Your task to perform on an android device: check battery use Image 0: 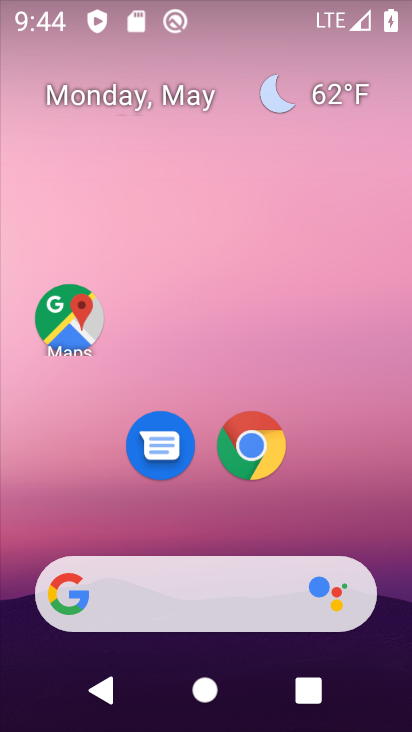
Step 0: drag from (382, 614) to (346, 73)
Your task to perform on an android device: check battery use Image 1: 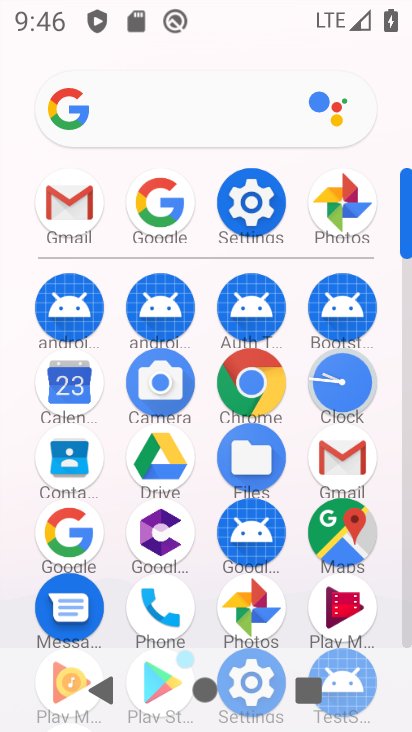
Step 1: click (268, 225)
Your task to perform on an android device: check battery use Image 2: 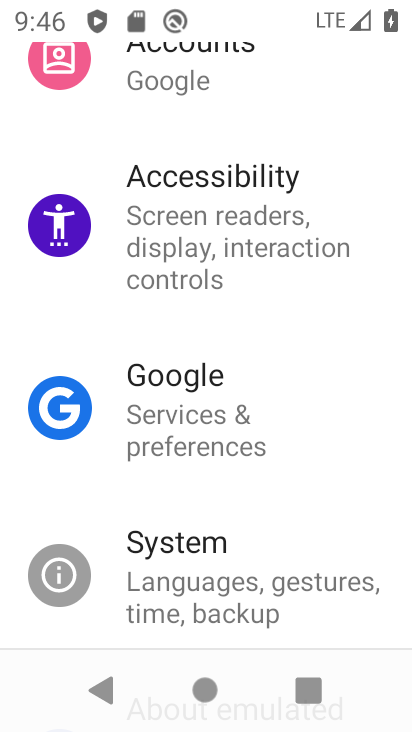
Step 2: drag from (220, 220) to (186, 728)
Your task to perform on an android device: check battery use Image 3: 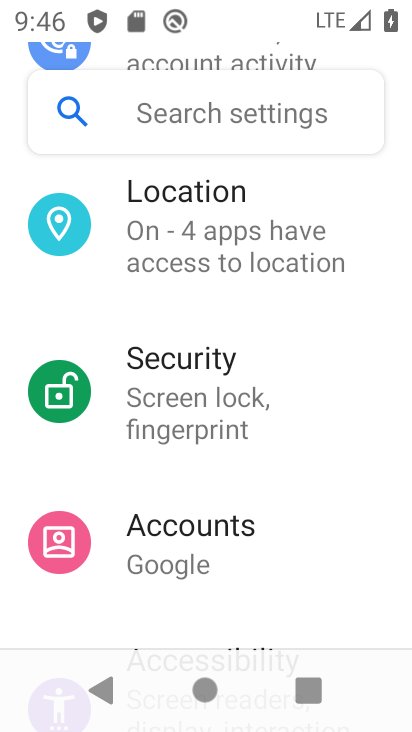
Step 3: drag from (238, 187) to (196, 599)
Your task to perform on an android device: check battery use Image 4: 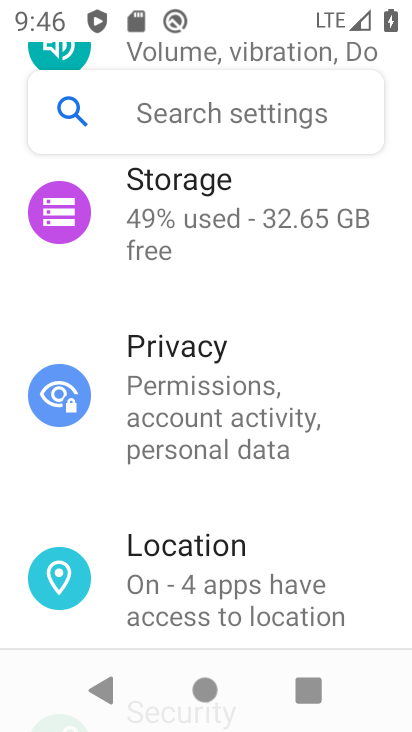
Step 4: drag from (284, 230) to (285, 591)
Your task to perform on an android device: check battery use Image 5: 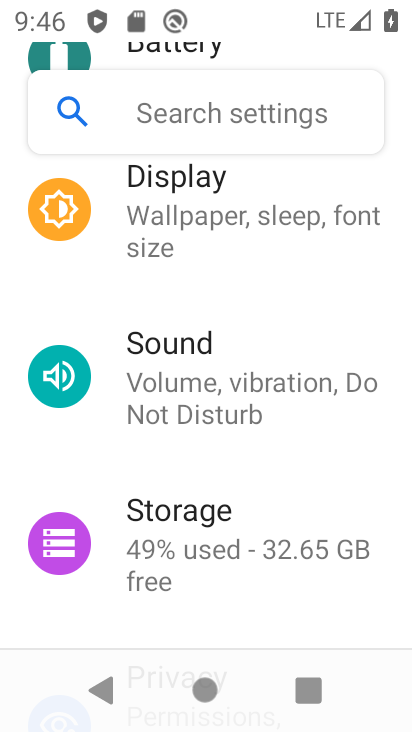
Step 5: drag from (232, 177) to (208, 527)
Your task to perform on an android device: check battery use Image 6: 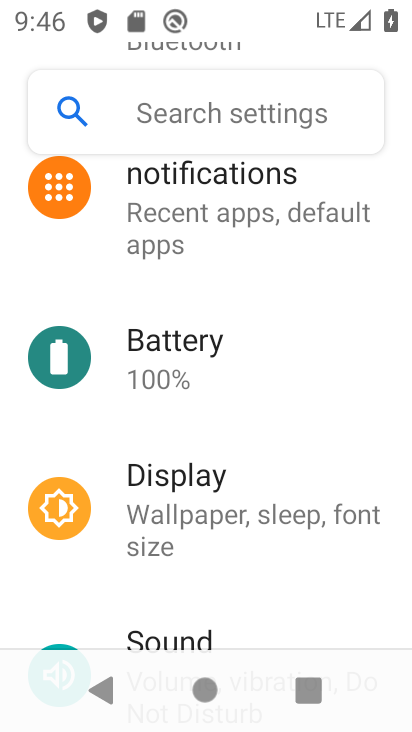
Step 6: click (183, 364)
Your task to perform on an android device: check battery use Image 7: 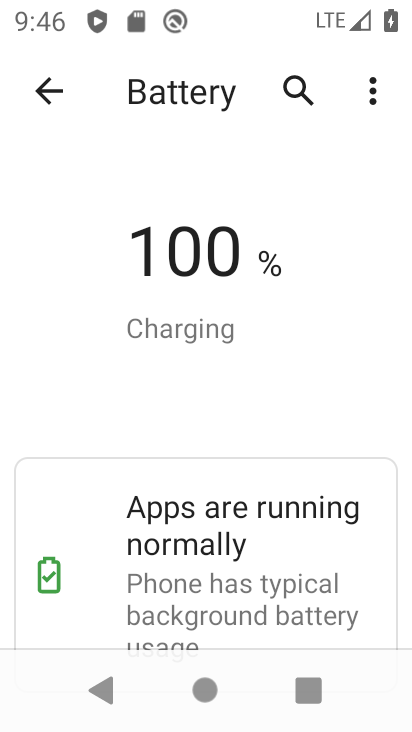
Step 7: click (372, 78)
Your task to perform on an android device: check battery use Image 8: 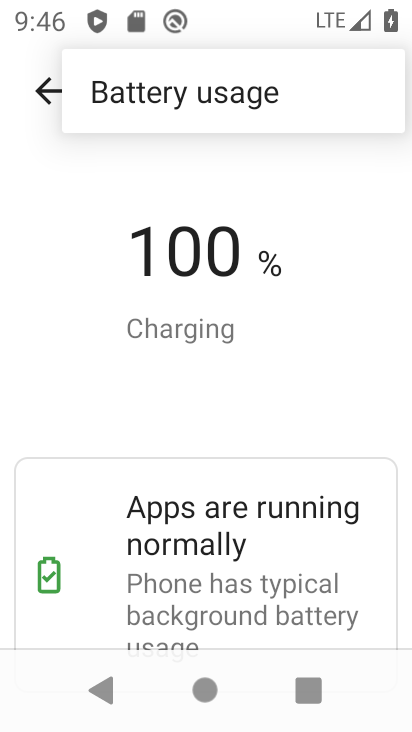
Step 8: click (305, 97)
Your task to perform on an android device: check battery use Image 9: 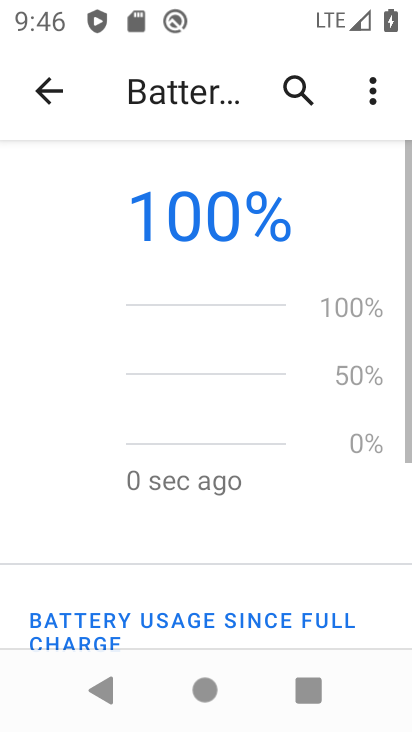
Step 9: task complete